Your task to perform on an android device: toggle improve location accuracy Image 0: 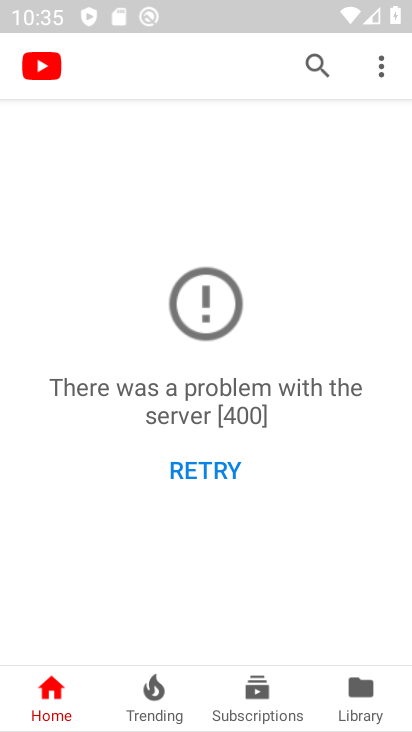
Step 0: task complete